Your task to perform on an android device: turn off priority inbox in the gmail app Image 0: 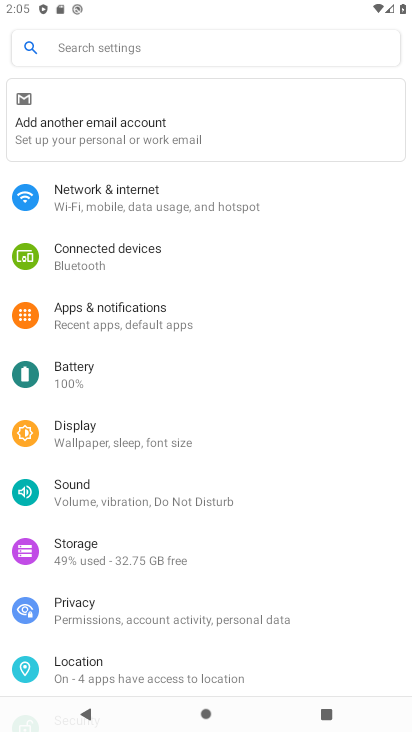
Step 0: press home button
Your task to perform on an android device: turn off priority inbox in the gmail app Image 1: 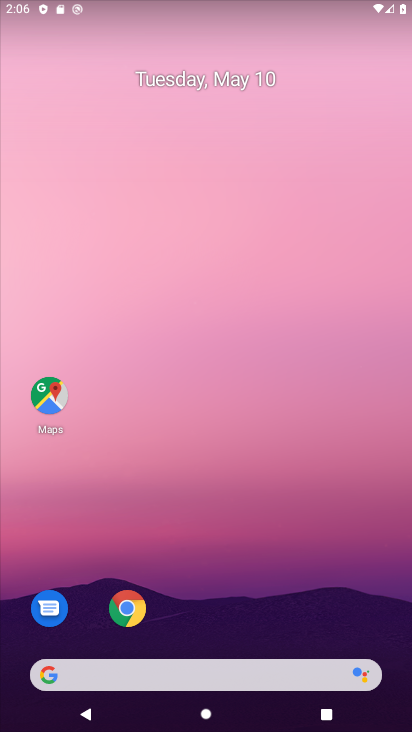
Step 1: drag from (393, 641) to (343, 76)
Your task to perform on an android device: turn off priority inbox in the gmail app Image 2: 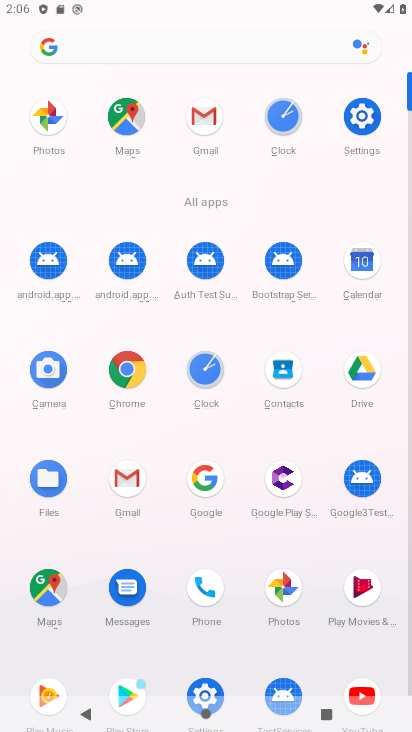
Step 2: click (410, 690)
Your task to perform on an android device: turn off priority inbox in the gmail app Image 3: 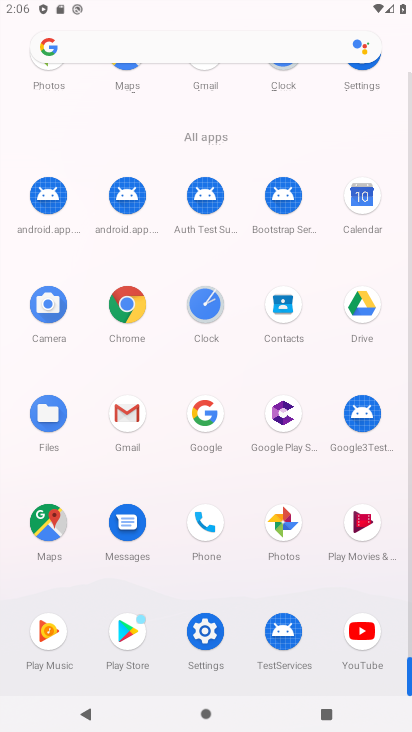
Step 3: click (122, 412)
Your task to perform on an android device: turn off priority inbox in the gmail app Image 4: 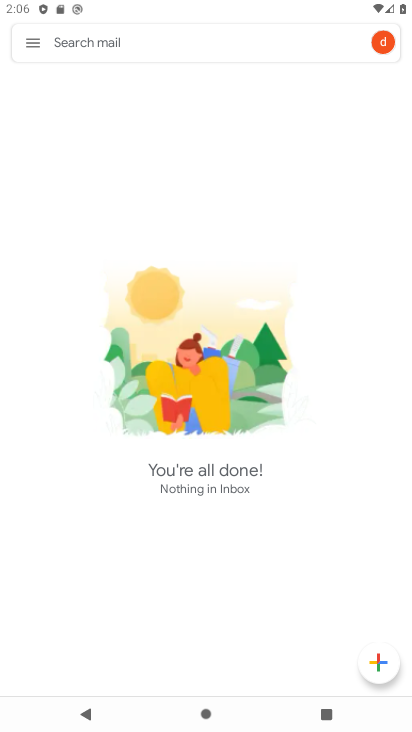
Step 4: click (31, 43)
Your task to perform on an android device: turn off priority inbox in the gmail app Image 5: 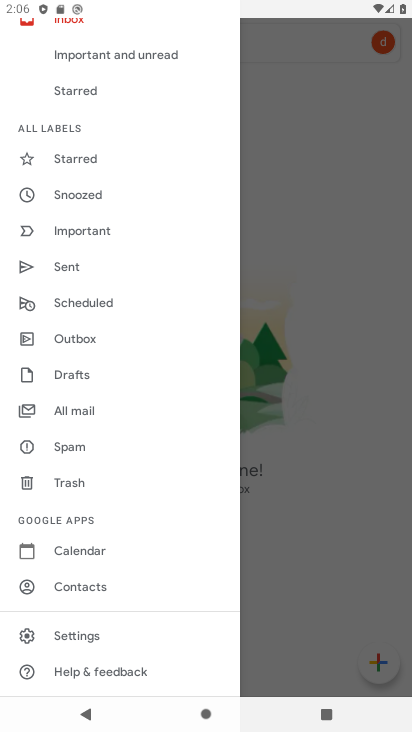
Step 5: click (80, 631)
Your task to perform on an android device: turn off priority inbox in the gmail app Image 6: 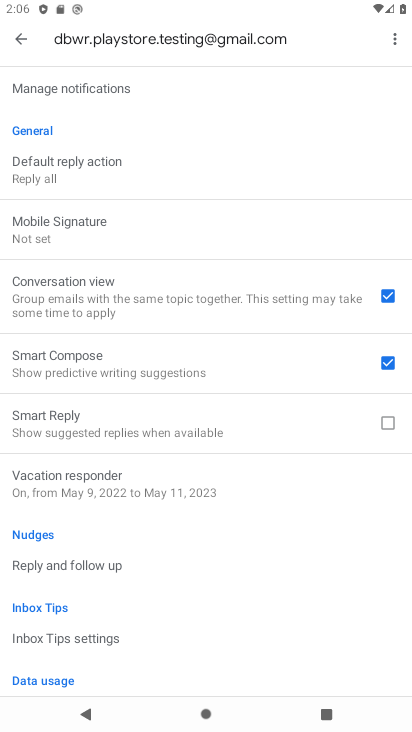
Step 6: drag from (302, 160) to (247, 453)
Your task to perform on an android device: turn off priority inbox in the gmail app Image 7: 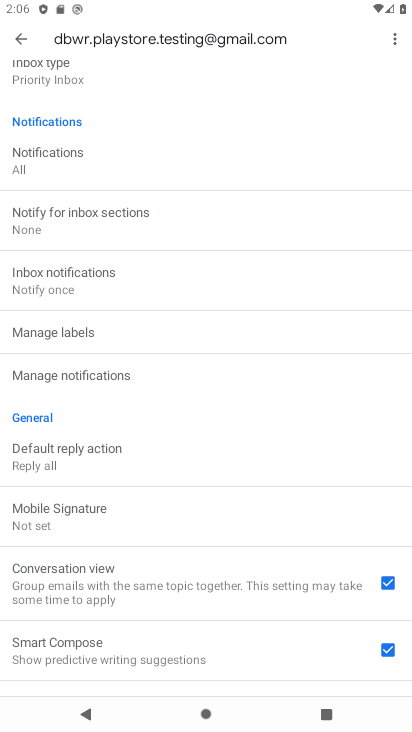
Step 7: drag from (230, 160) to (218, 385)
Your task to perform on an android device: turn off priority inbox in the gmail app Image 8: 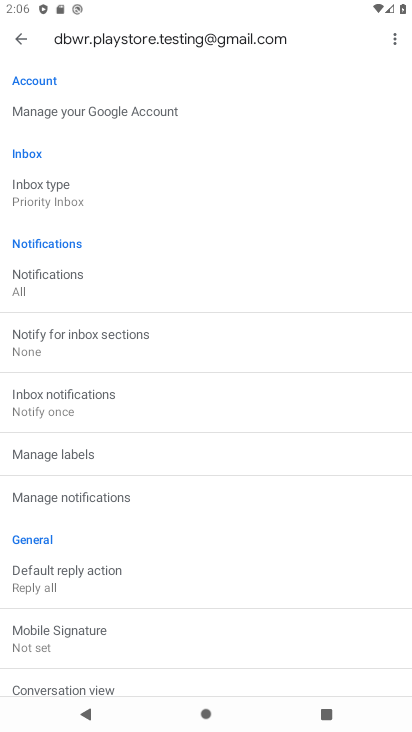
Step 8: click (37, 196)
Your task to perform on an android device: turn off priority inbox in the gmail app Image 9: 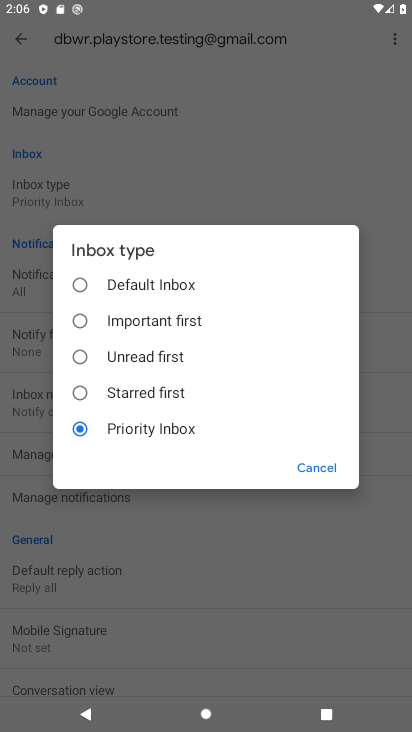
Step 9: click (83, 282)
Your task to perform on an android device: turn off priority inbox in the gmail app Image 10: 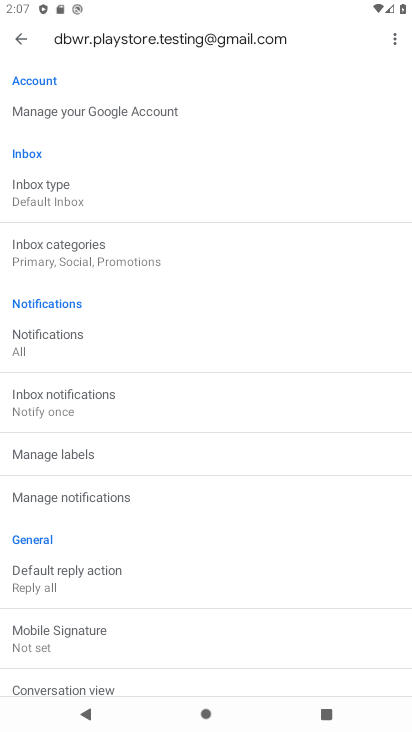
Step 10: task complete